Your task to perform on an android device: Open maps Image 0: 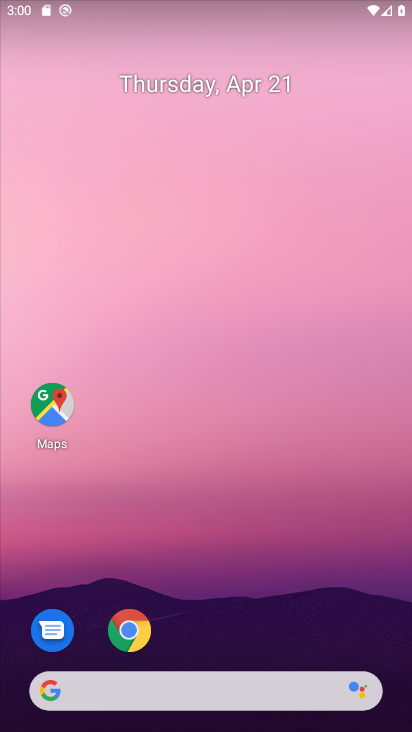
Step 0: drag from (205, 610) to (209, 3)
Your task to perform on an android device: Open maps Image 1: 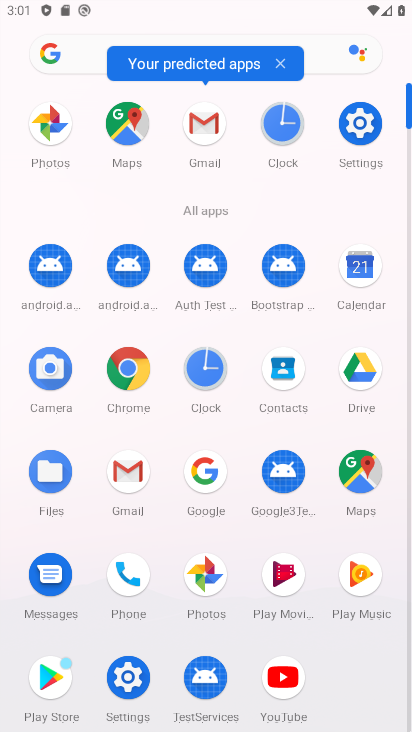
Step 1: click (123, 122)
Your task to perform on an android device: Open maps Image 2: 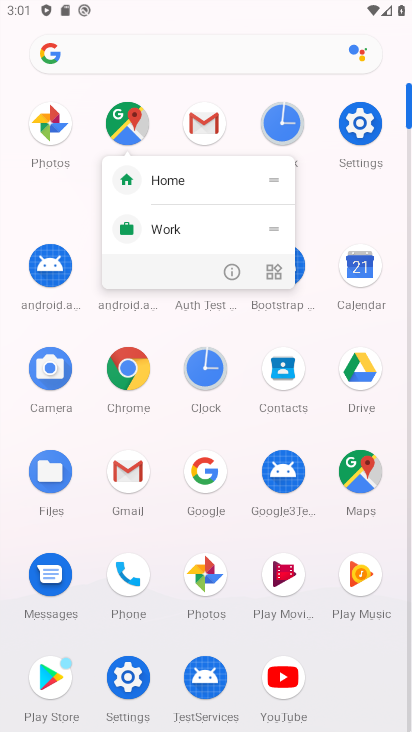
Step 2: click (227, 271)
Your task to perform on an android device: Open maps Image 3: 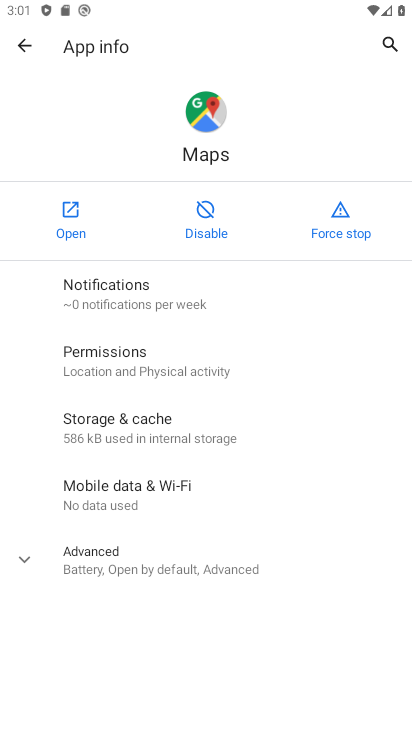
Step 3: click (58, 213)
Your task to perform on an android device: Open maps Image 4: 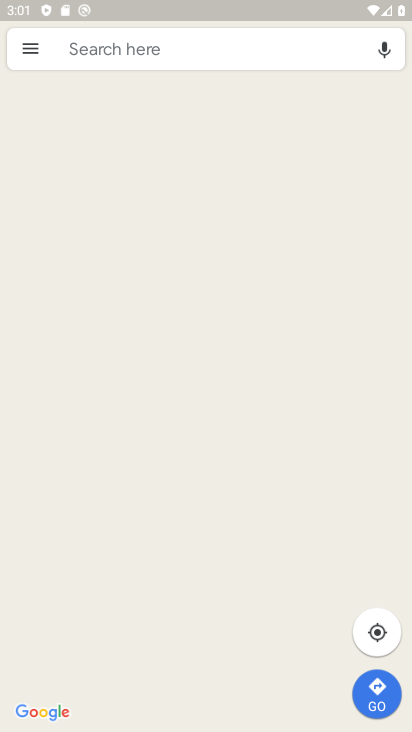
Step 4: task complete